Your task to perform on an android device: add a contact Image 0: 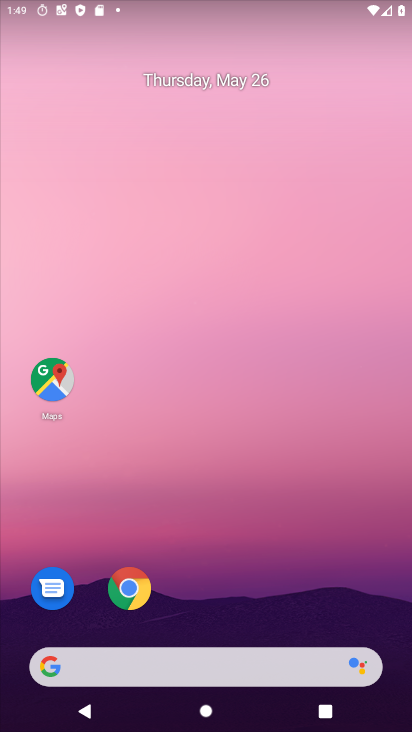
Step 0: drag from (400, 575) to (406, 101)
Your task to perform on an android device: add a contact Image 1: 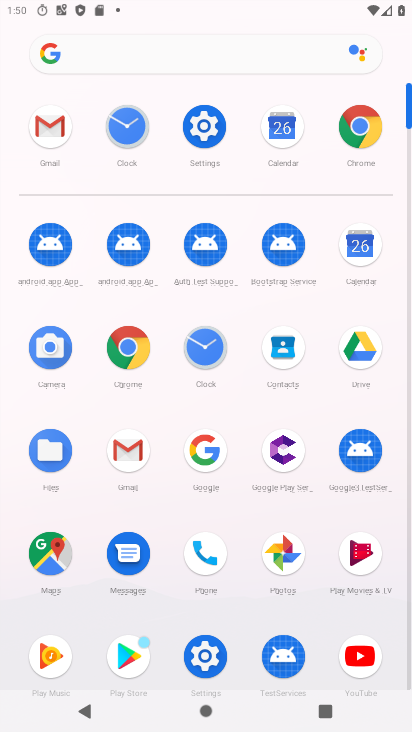
Step 1: click (282, 343)
Your task to perform on an android device: add a contact Image 2: 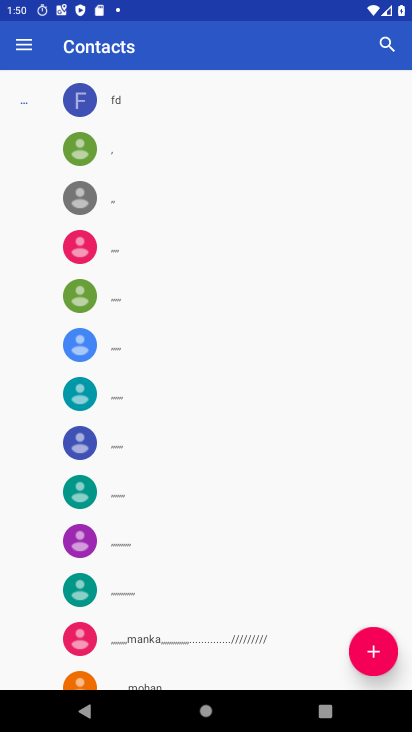
Step 2: drag from (223, 619) to (268, 297)
Your task to perform on an android device: add a contact Image 3: 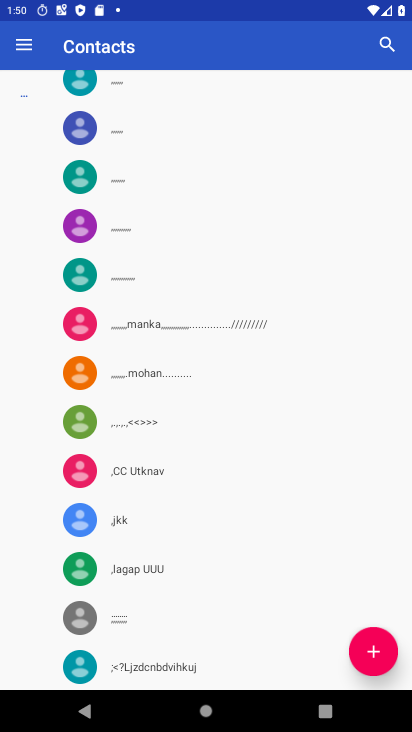
Step 3: drag from (217, 615) to (255, 284)
Your task to perform on an android device: add a contact Image 4: 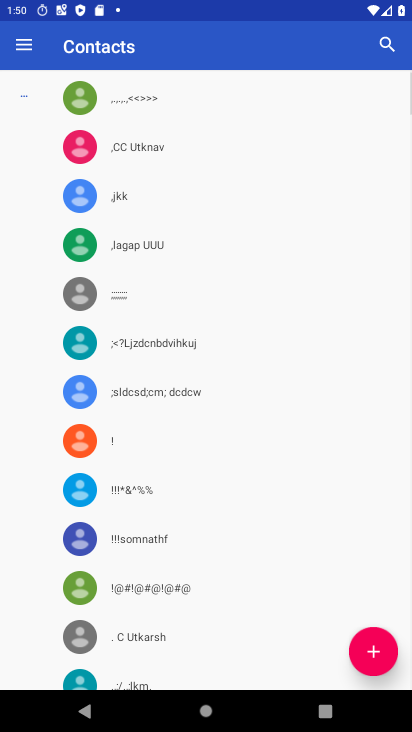
Step 4: click (361, 645)
Your task to perform on an android device: add a contact Image 5: 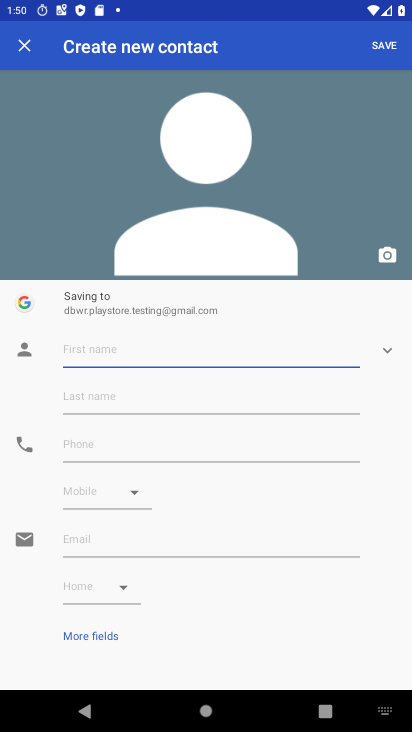
Step 5: type "dfgygb"
Your task to perform on an android device: add a contact Image 6: 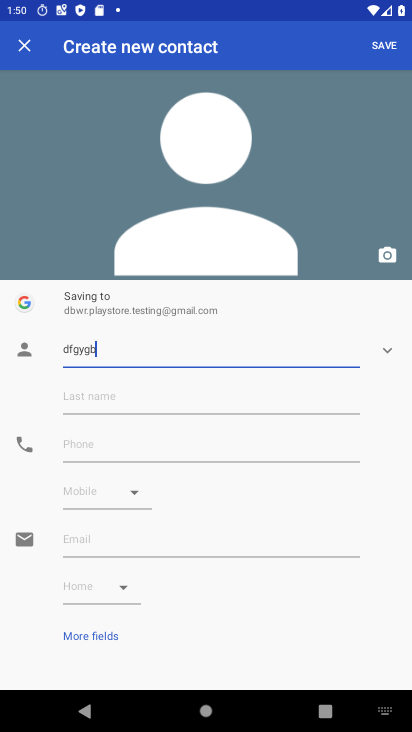
Step 6: click (113, 401)
Your task to perform on an android device: add a contact Image 7: 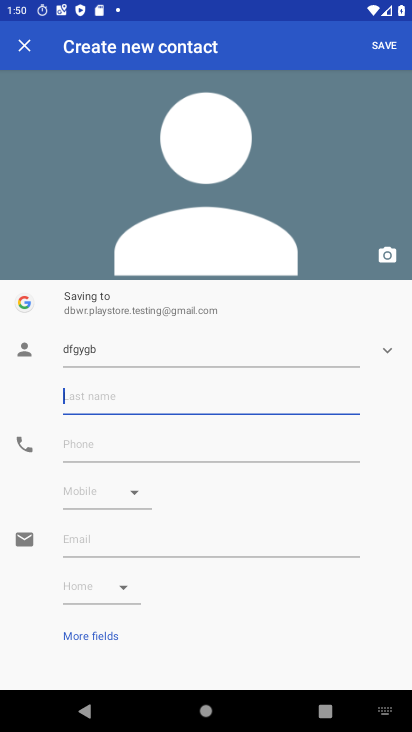
Step 7: type "rgnihgvc"
Your task to perform on an android device: add a contact Image 8: 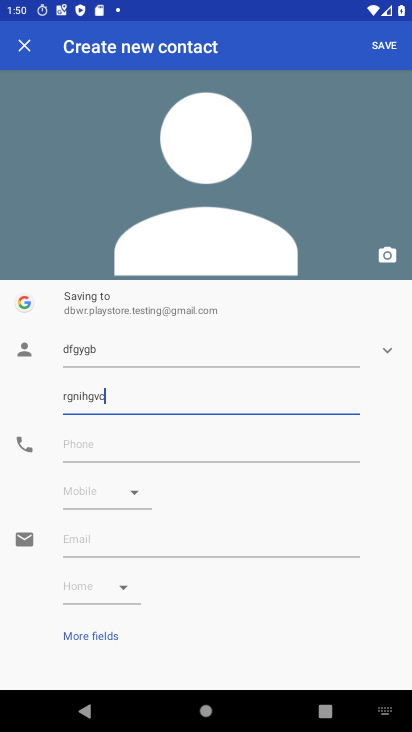
Step 8: click (278, 454)
Your task to perform on an android device: add a contact Image 9: 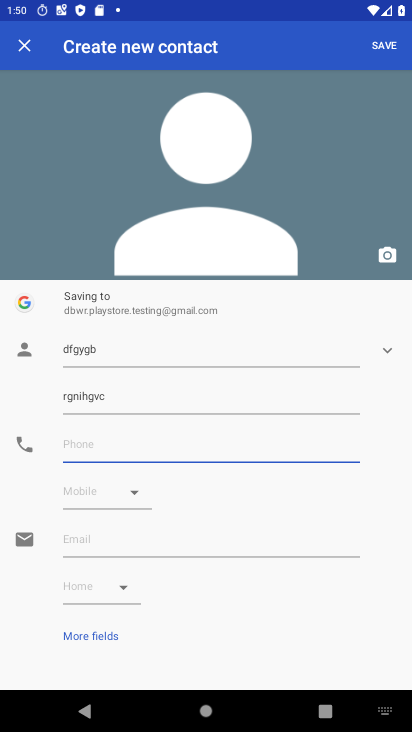
Step 9: type "3456543223"
Your task to perform on an android device: add a contact Image 10: 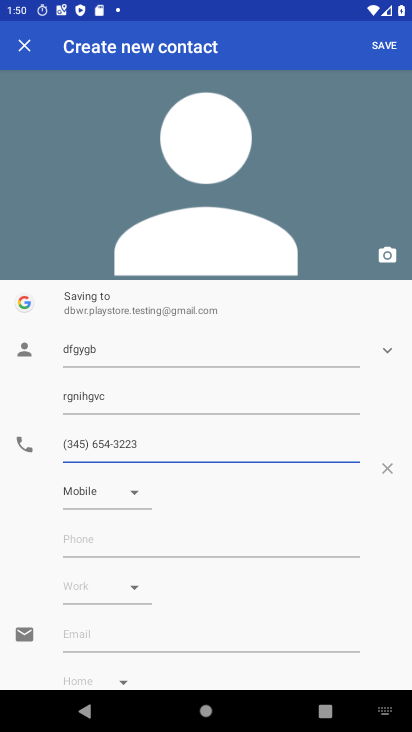
Step 10: click (379, 39)
Your task to perform on an android device: add a contact Image 11: 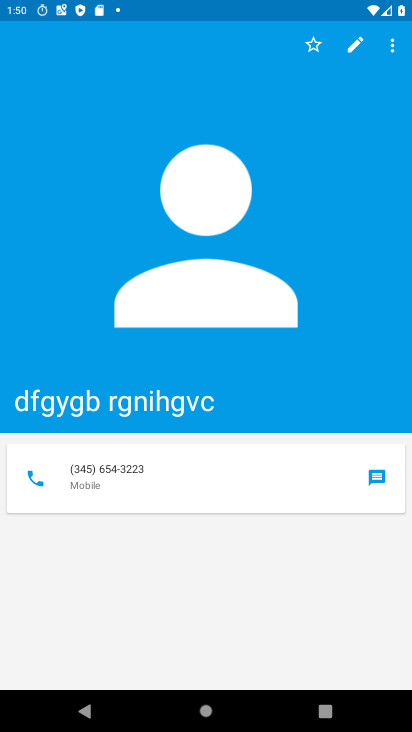
Step 11: task complete